Your task to perform on an android device: open the mobile data screen to see how much data has been used Image 0: 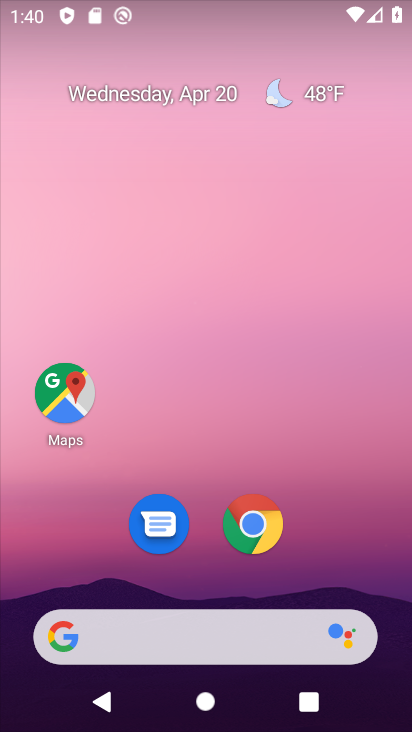
Step 0: drag from (365, 554) to (344, 79)
Your task to perform on an android device: open the mobile data screen to see how much data has been used Image 1: 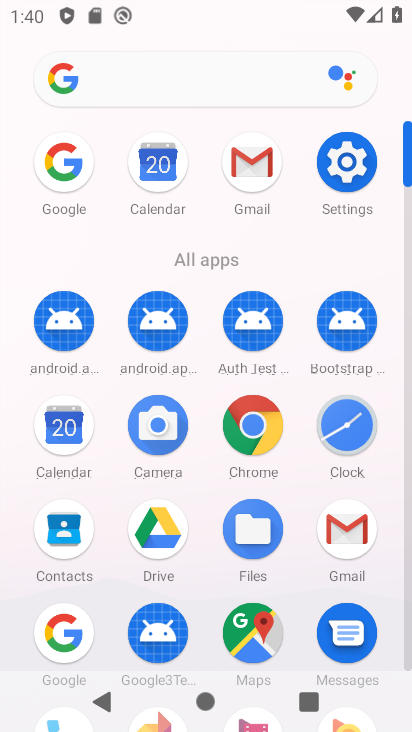
Step 1: click (349, 162)
Your task to perform on an android device: open the mobile data screen to see how much data has been used Image 2: 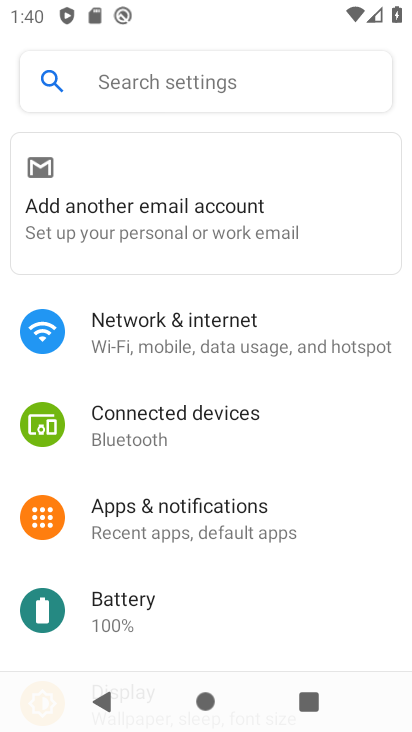
Step 2: click (293, 334)
Your task to perform on an android device: open the mobile data screen to see how much data has been used Image 3: 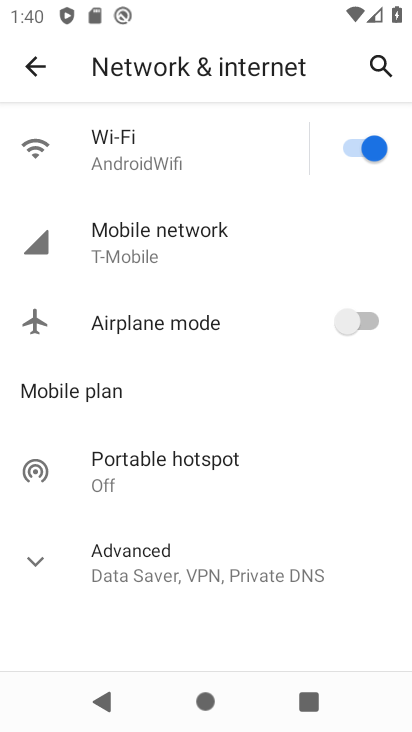
Step 3: click (272, 233)
Your task to perform on an android device: open the mobile data screen to see how much data has been used Image 4: 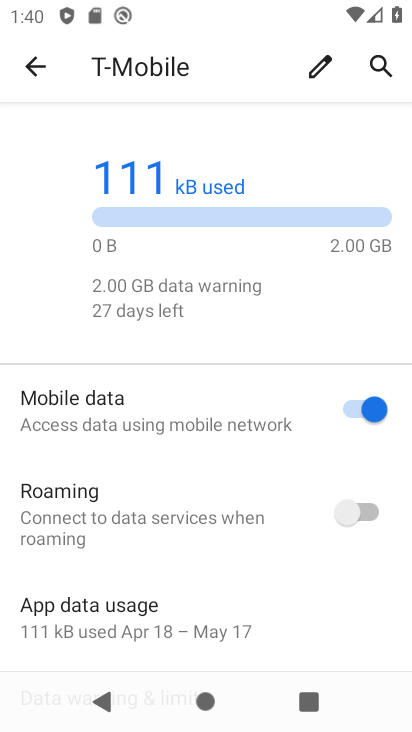
Step 4: task complete